Your task to perform on an android device: turn off location history Image 0: 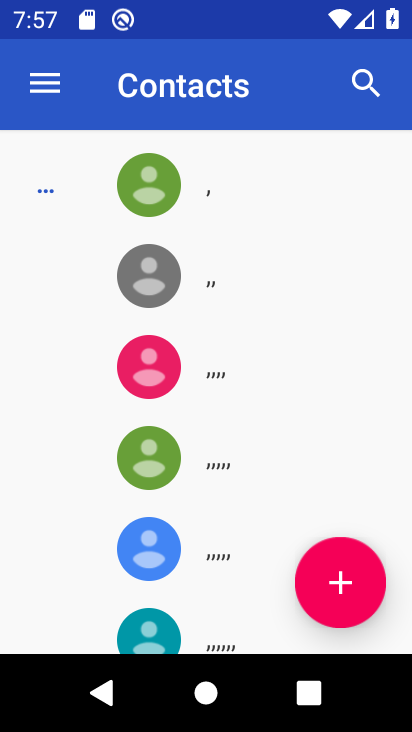
Step 0: press home button
Your task to perform on an android device: turn off location history Image 1: 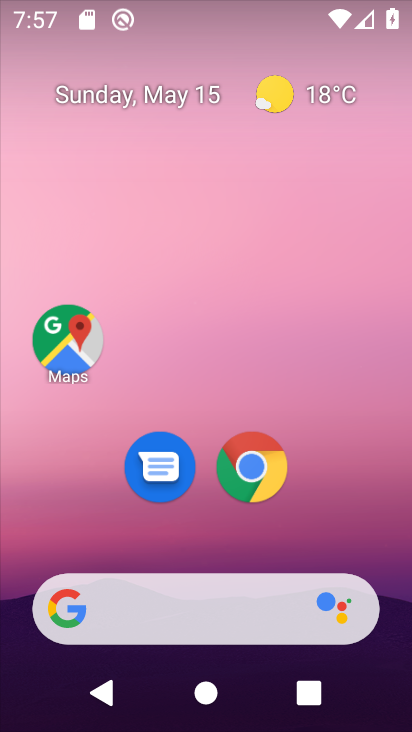
Step 1: drag from (252, 539) to (253, 21)
Your task to perform on an android device: turn off location history Image 2: 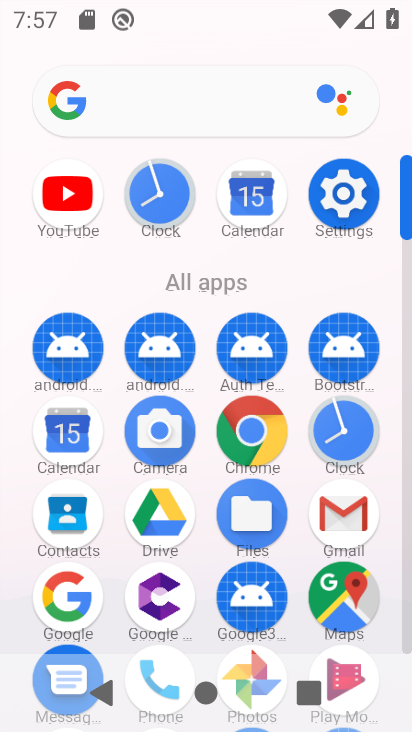
Step 2: click (325, 197)
Your task to perform on an android device: turn off location history Image 3: 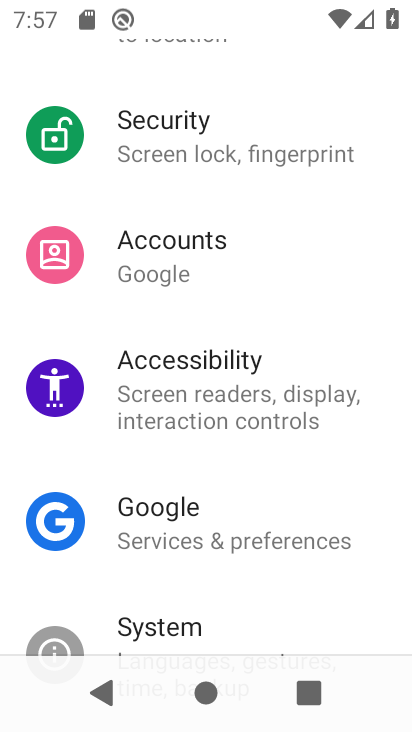
Step 3: drag from (233, 274) to (190, 426)
Your task to perform on an android device: turn off location history Image 4: 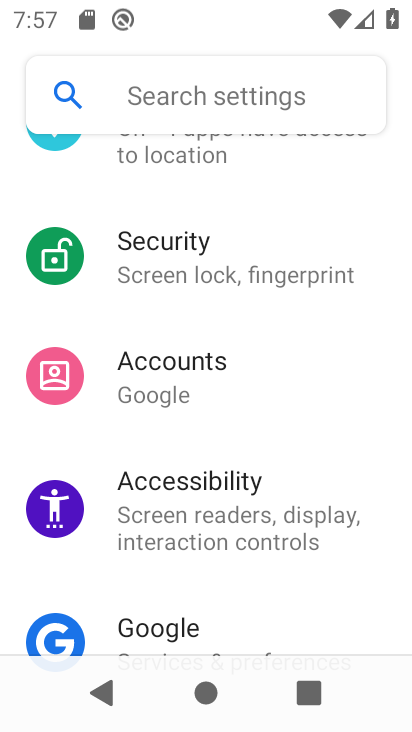
Step 4: drag from (136, 246) to (178, 439)
Your task to perform on an android device: turn off location history Image 5: 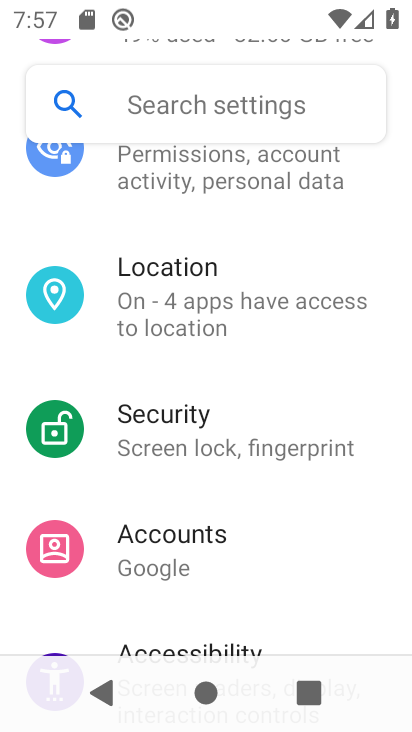
Step 5: click (133, 318)
Your task to perform on an android device: turn off location history Image 6: 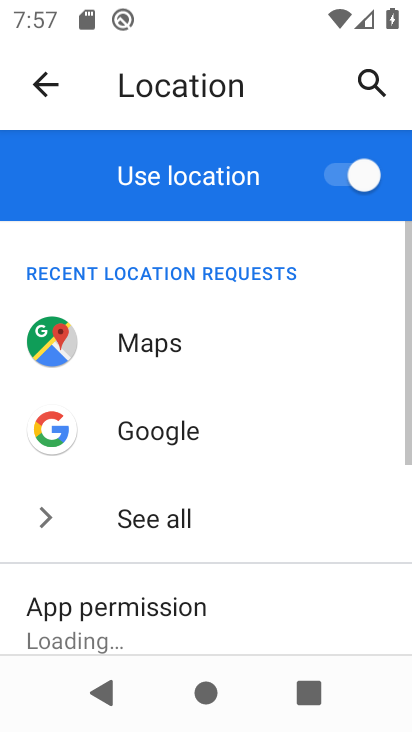
Step 6: drag from (168, 570) to (156, 374)
Your task to perform on an android device: turn off location history Image 7: 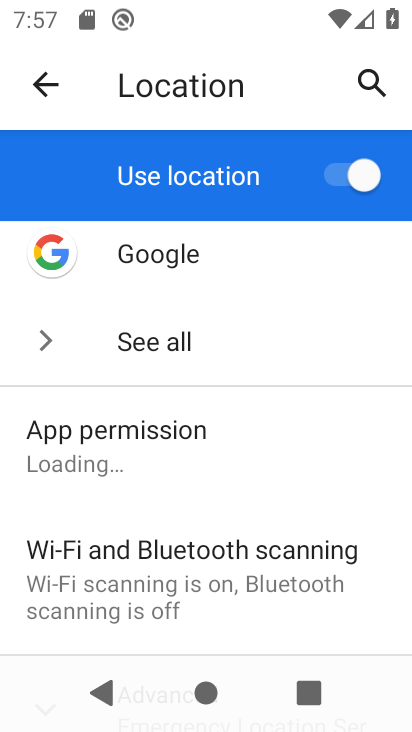
Step 7: drag from (89, 646) to (132, 379)
Your task to perform on an android device: turn off location history Image 8: 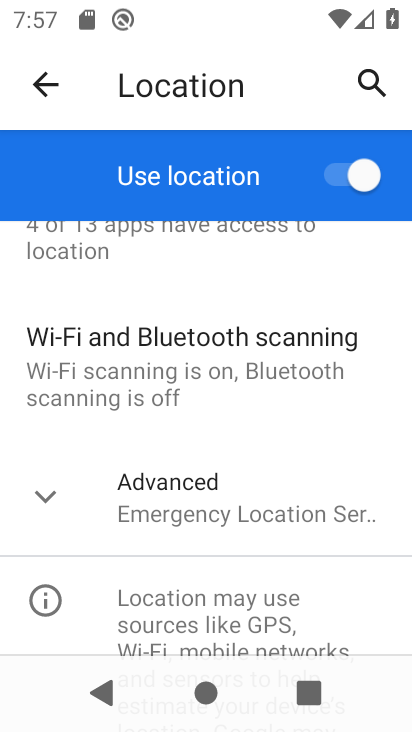
Step 8: click (136, 484)
Your task to perform on an android device: turn off location history Image 9: 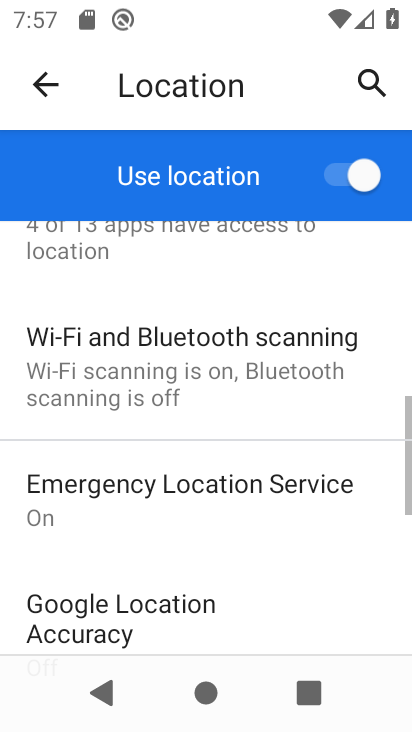
Step 9: drag from (135, 575) to (170, 348)
Your task to perform on an android device: turn off location history Image 10: 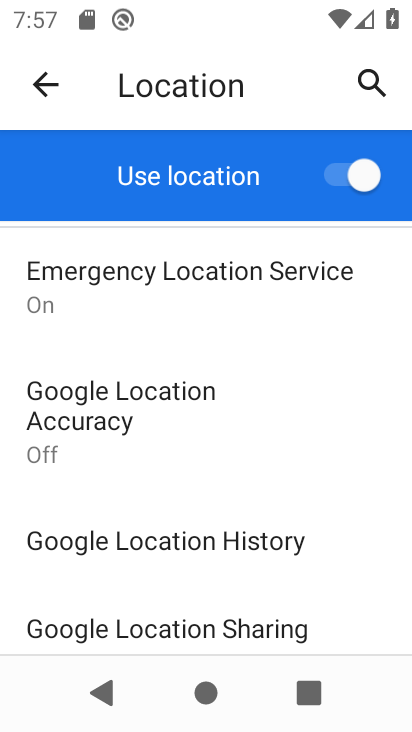
Step 10: click (202, 557)
Your task to perform on an android device: turn off location history Image 11: 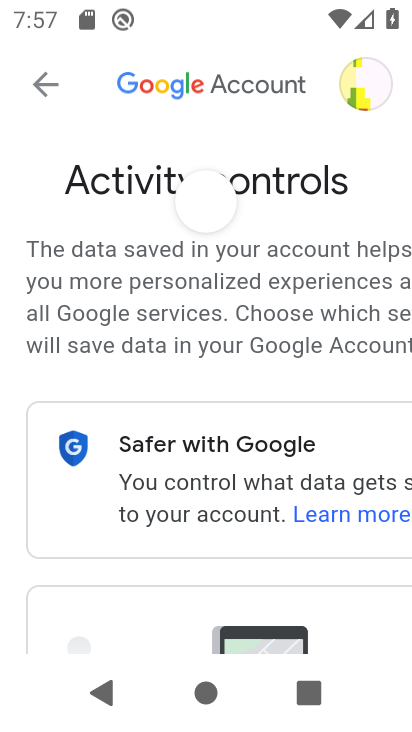
Step 11: drag from (193, 577) to (211, 317)
Your task to perform on an android device: turn off location history Image 12: 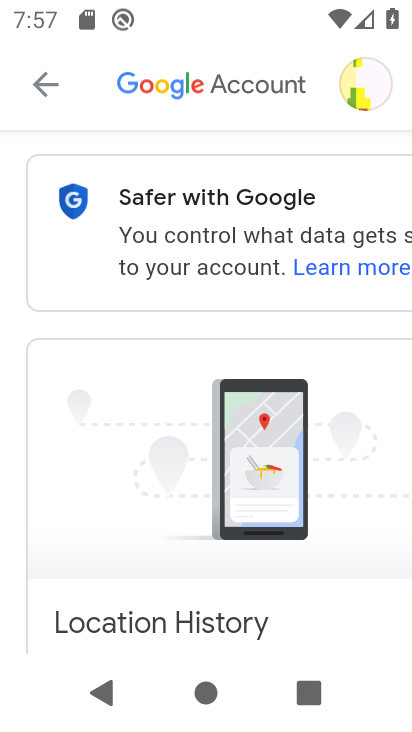
Step 12: drag from (195, 530) to (185, 299)
Your task to perform on an android device: turn off location history Image 13: 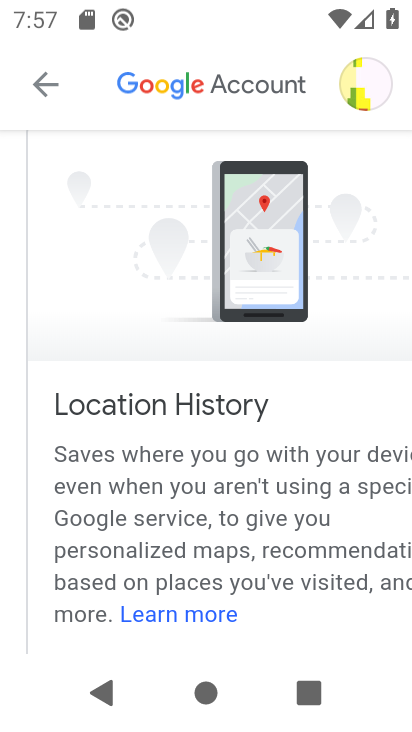
Step 13: drag from (185, 569) to (156, 301)
Your task to perform on an android device: turn off location history Image 14: 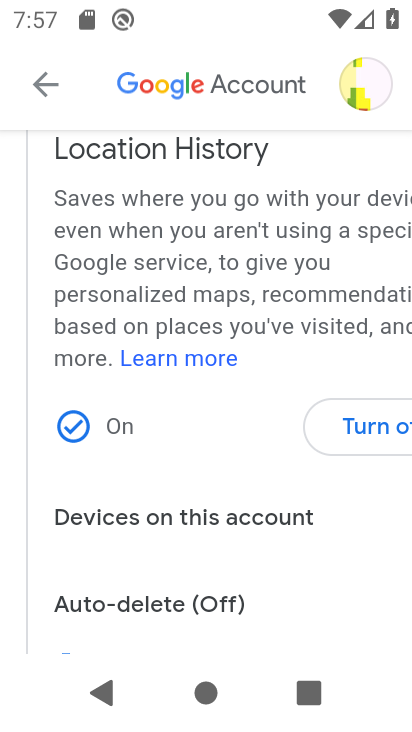
Step 14: click (350, 423)
Your task to perform on an android device: turn off location history Image 15: 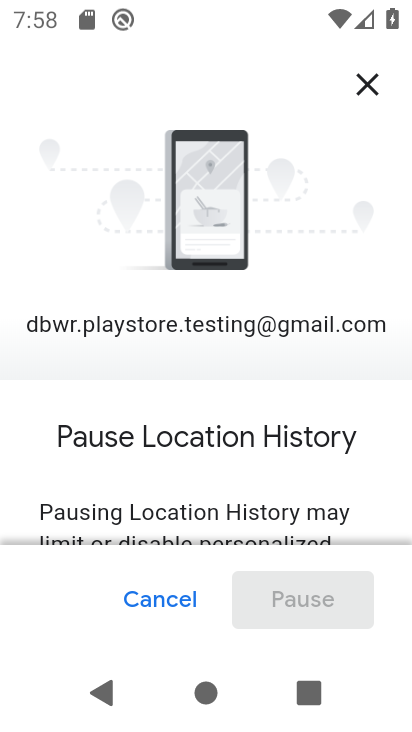
Step 15: drag from (286, 488) to (249, 196)
Your task to perform on an android device: turn off location history Image 16: 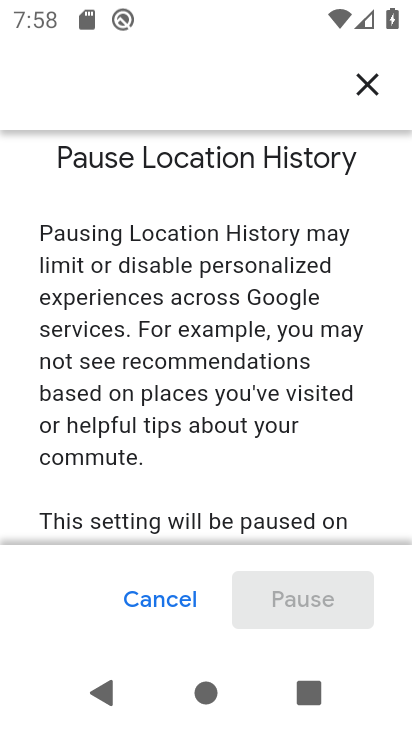
Step 16: drag from (304, 497) to (279, 228)
Your task to perform on an android device: turn off location history Image 17: 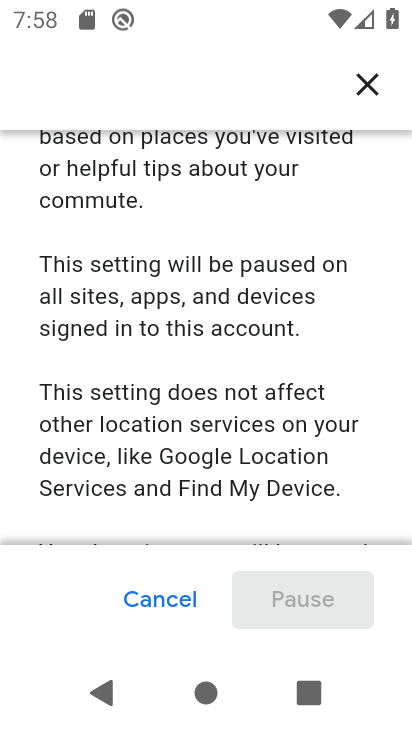
Step 17: drag from (205, 369) to (222, 260)
Your task to perform on an android device: turn off location history Image 18: 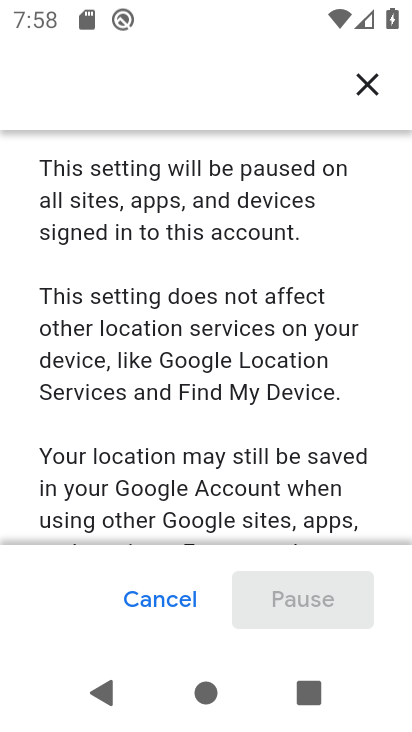
Step 18: drag from (257, 490) to (218, 221)
Your task to perform on an android device: turn off location history Image 19: 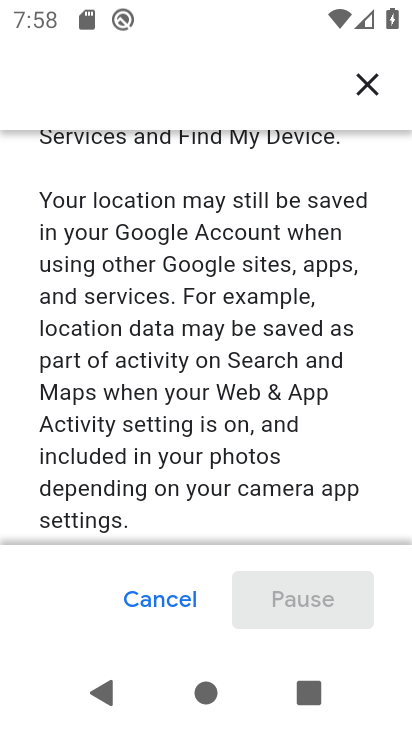
Step 19: drag from (226, 472) to (182, 196)
Your task to perform on an android device: turn off location history Image 20: 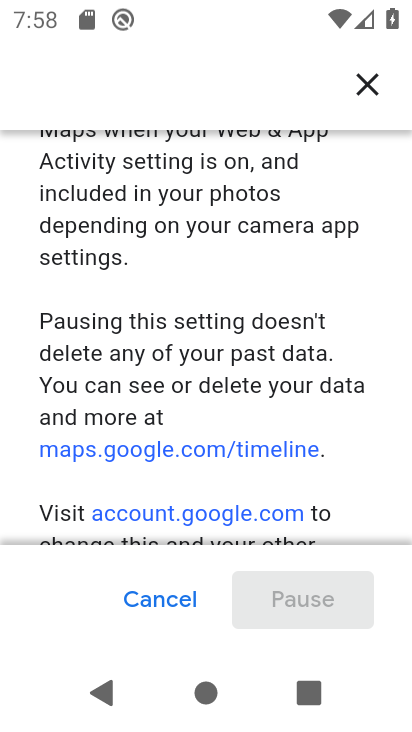
Step 20: drag from (219, 482) to (185, 181)
Your task to perform on an android device: turn off location history Image 21: 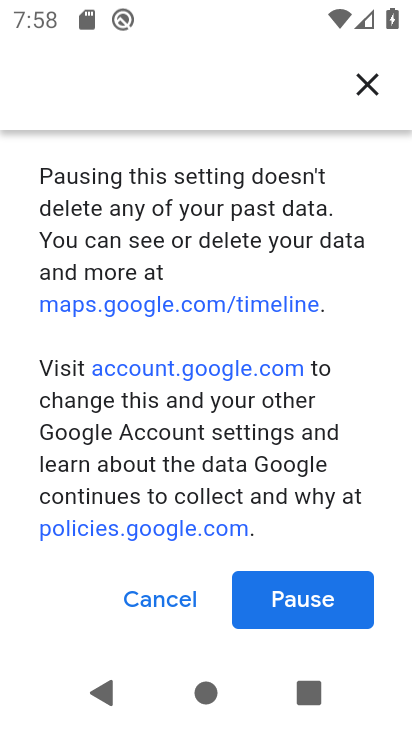
Step 21: click (270, 589)
Your task to perform on an android device: turn off location history Image 22: 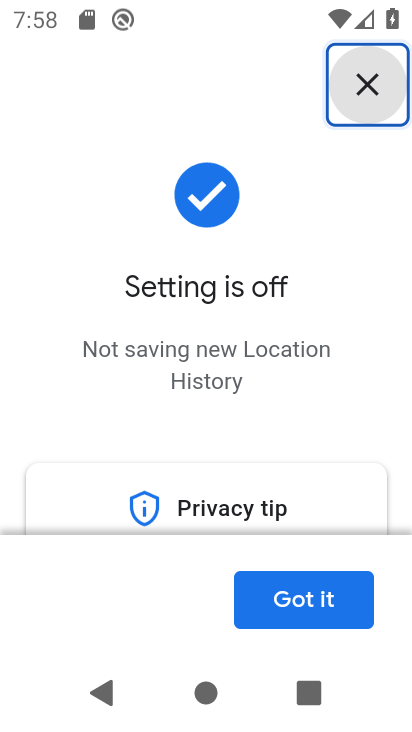
Step 22: click (346, 605)
Your task to perform on an android device: turn off location history Image 23: 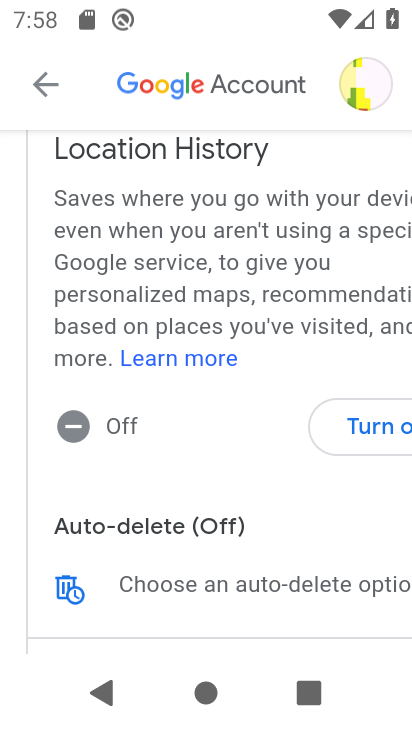
Step 23: task complete